Your task to perform on an android device: Set the phone to "Do not disturb". Image 0: 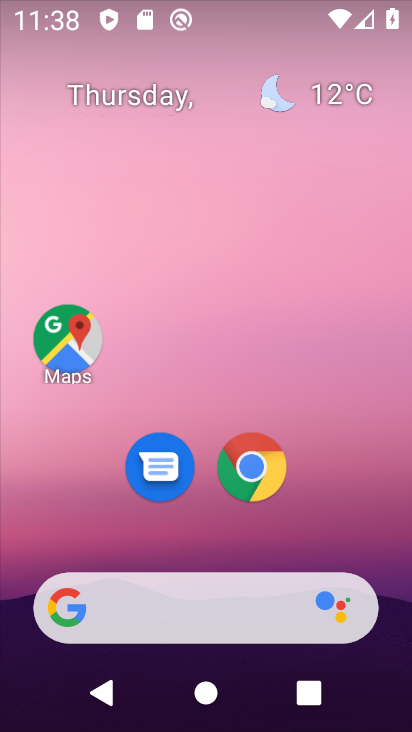
Step 0: drag from (339, 502) to (411, 143)
Your task to perform on an android device: Set the phone to "Do not disturb". Image 1: 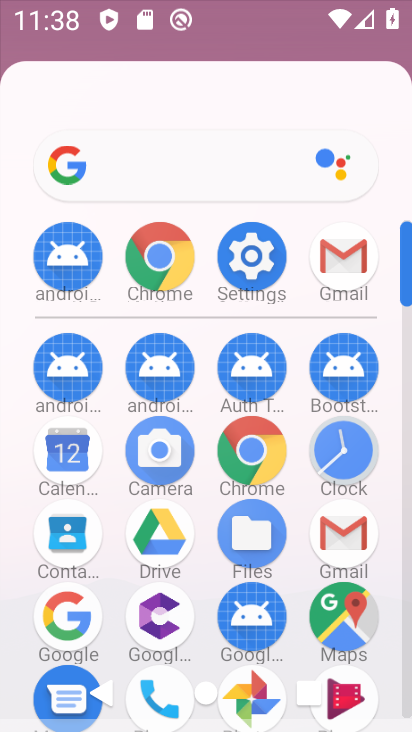
Step 1: click (241, 234)
Your task to perform on an android device: Set the phone to "Do not disturb". Image 2: 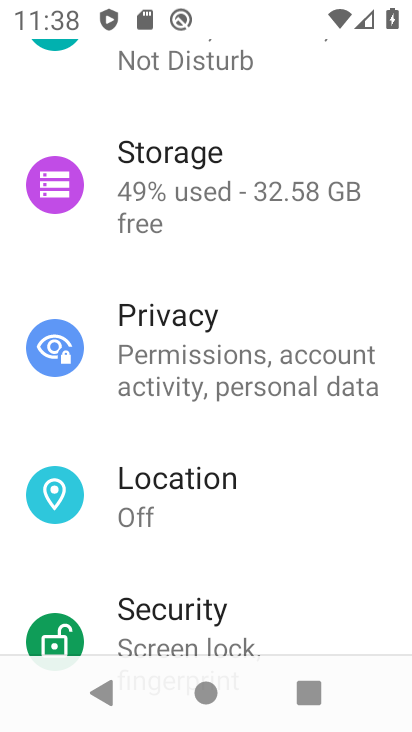
Step 2: drag from (195, 516) to (270, 155)
Your task to perform on an android device: Set the phone to "Do not disturb". Image 3: 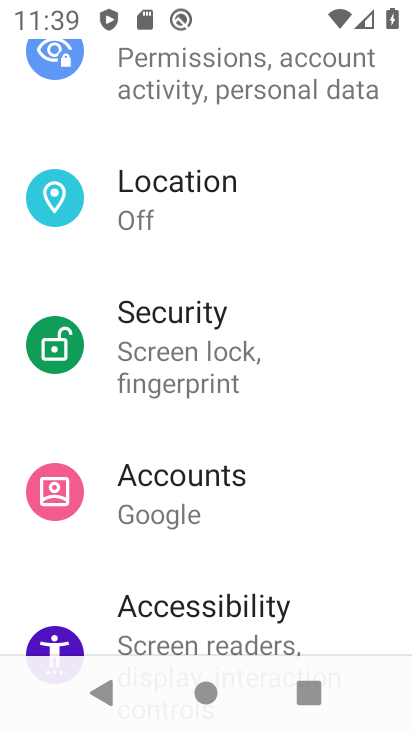
Step 3: drag from (222, 450) to (261, 58)
Your task to perform on an android device: Set the phone to "Do not disturb". Image 4: 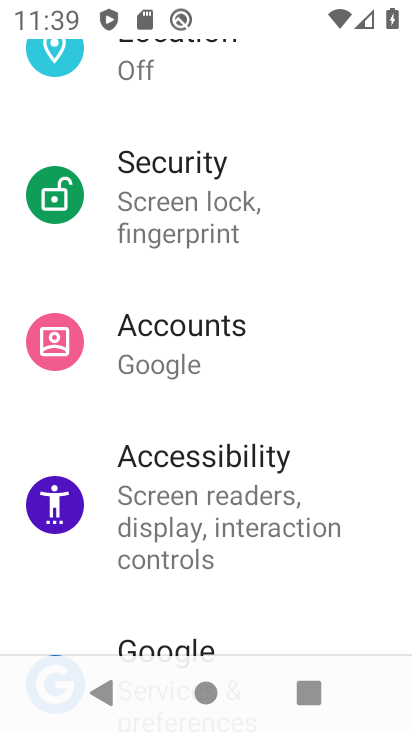
Step 4: drag from (170, 527) to (251, 105)
Your task to perform on an android device: Set the phone to "Do not disturb". Image 5: 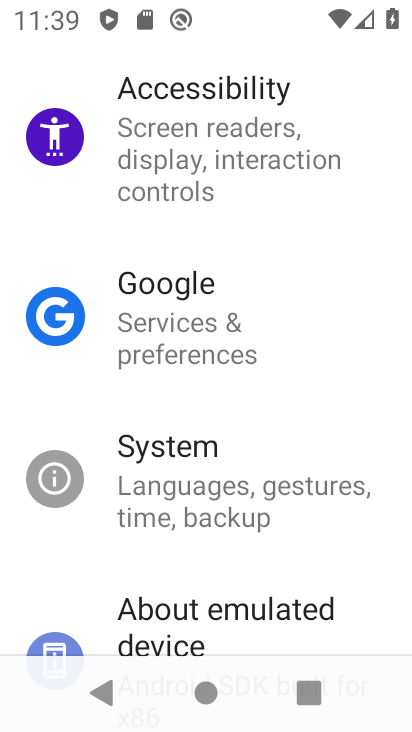
Step 5: drag from (357, 227) to (276, 540)
Your task to perform on an android device: Set the phone to "Do not disturb". Image 6: 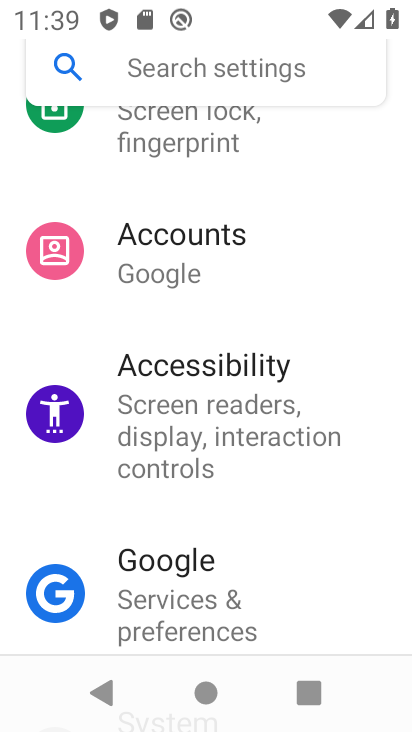
Step 6: drag from (292, 320) to (267, 558)
Your task to perform on an android device: Set the phone to "Do not disturb". Image 7: 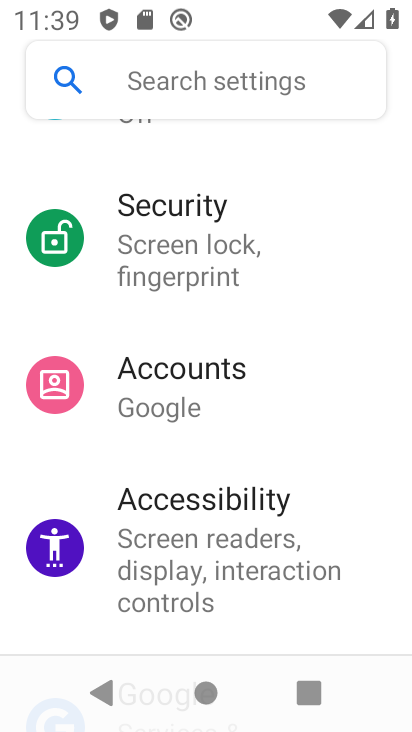
Step 7: drag from (279, 396) to (235, 554)
Your task to perform on an android device: Set the phone to "Do not disturb". Image 8: 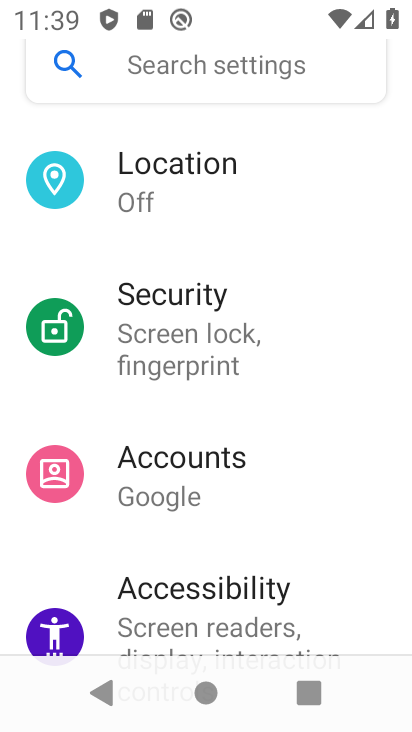
Step 8: drag from (240, 311) to (227, 480)
Your task to perform on an android device: Set the phone to "Do not disturb". Image 9: 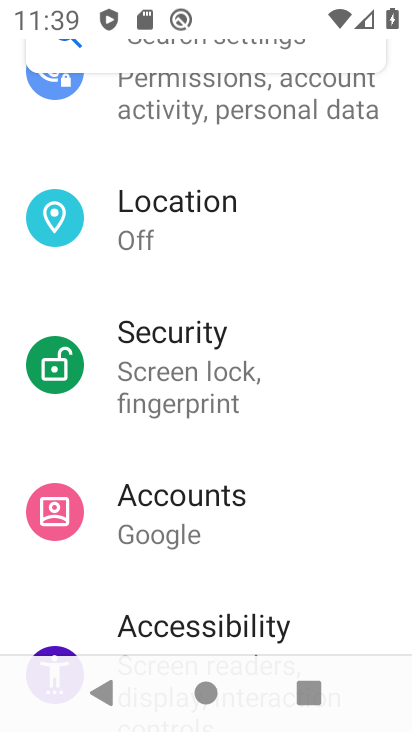
Step 9: drag from (266, 249) to (230, 571)
Your task to perform on an android device: Set the phone to "Do not disturb". Image 10: 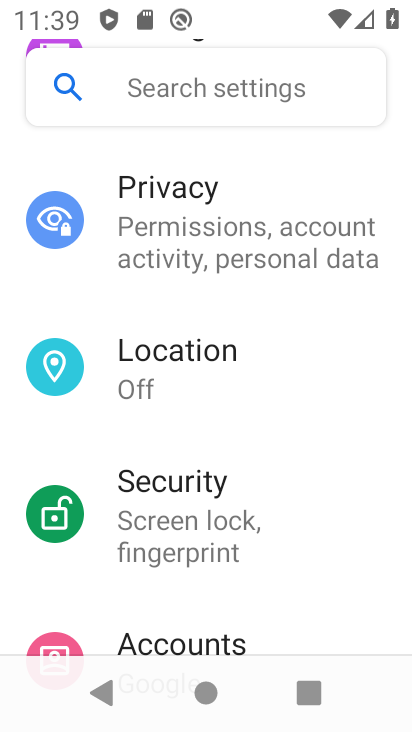
Step 10: drag from (264, 257) to (242, 500)
Your task to perform on an android device: Set the phone to "Do not disturb". Image 11: 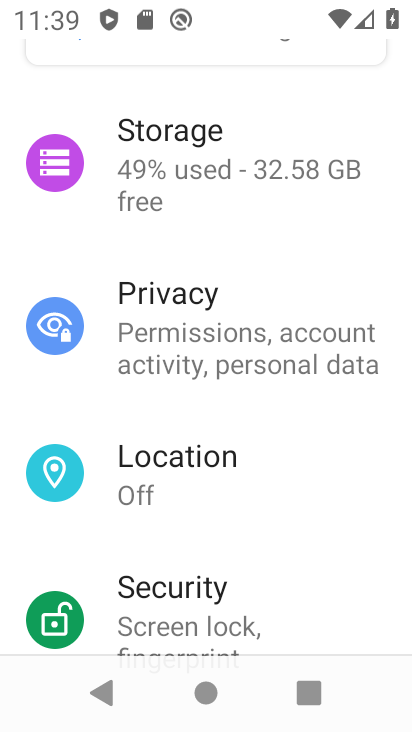
Step 11: drag from (248, 307) to (230, 499)
Your task to perform on an android device: Set the phone to "Do not disturb". Image 12: 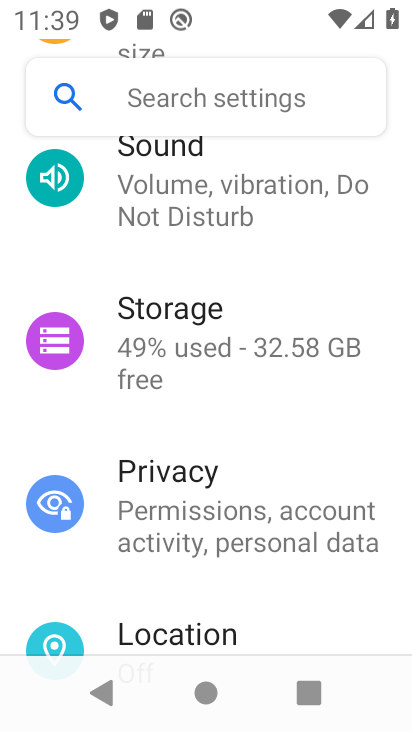
Step 12: drag from (225, 260) to (196, 512)
Your task to perform on an android device: Set the phone to "Do not disturb". Image 13: 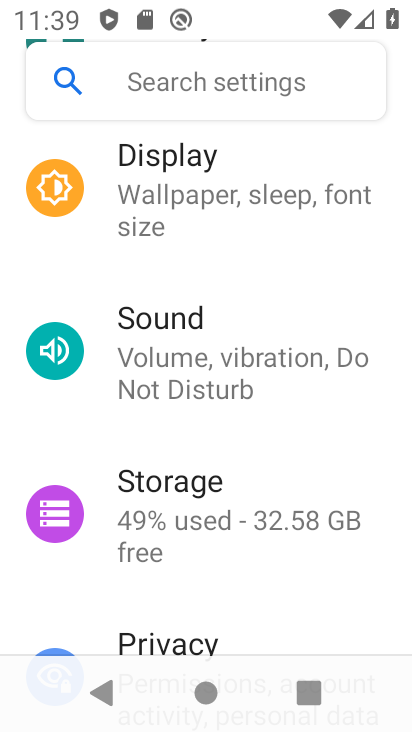
Step 13: click (196, 363)
Your task to perform on an android device: Set the phone to "Do not disturb". Image 14: 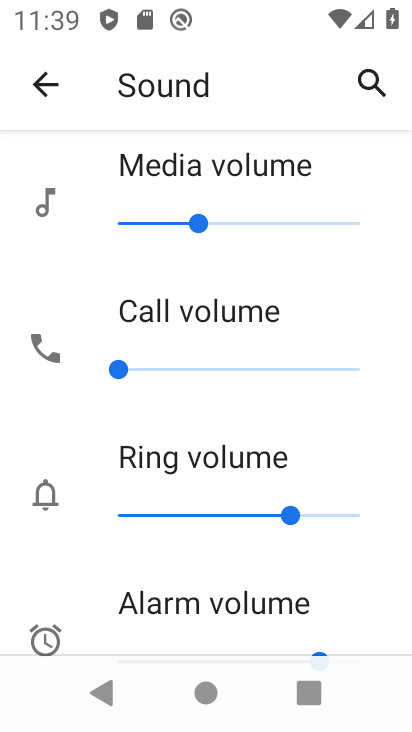
Step 14: task complete